Your task to perform on an android device: Open CNN.com Image 0: 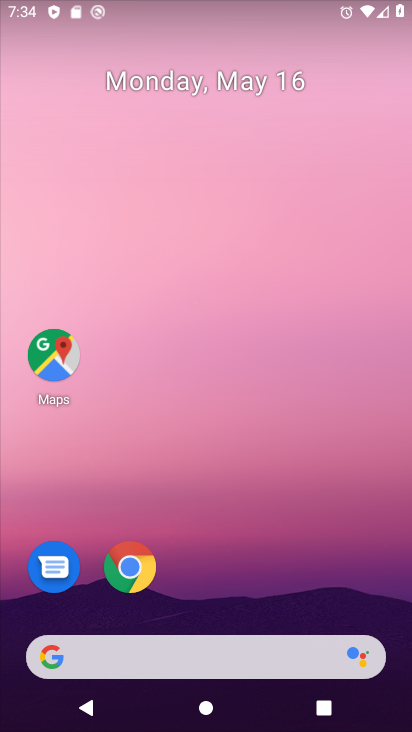
Step 0: press home button
Your task to perform on an android device: Open CNN.com Image 1: 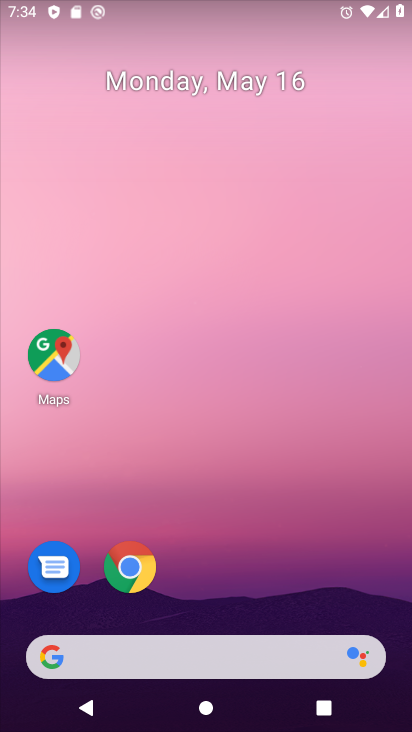
Step 1: drag from (152, 638) to (141, 262)
Your task to perform on an android device: Open CNN.com Image 2: 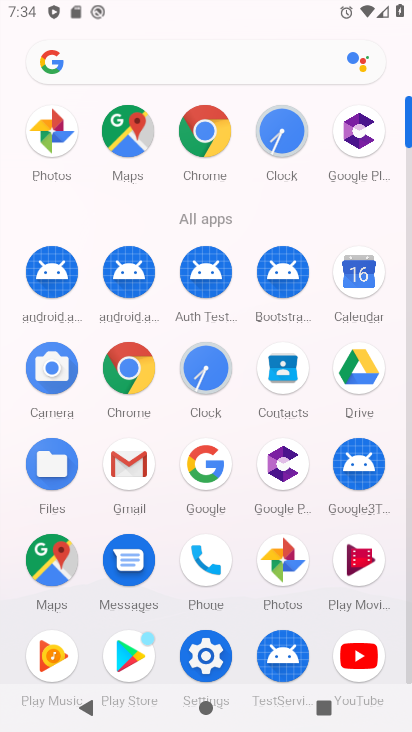
Step 2: click (207, 477)
Your task to perform on an android device: Open CNN.com Image 3: 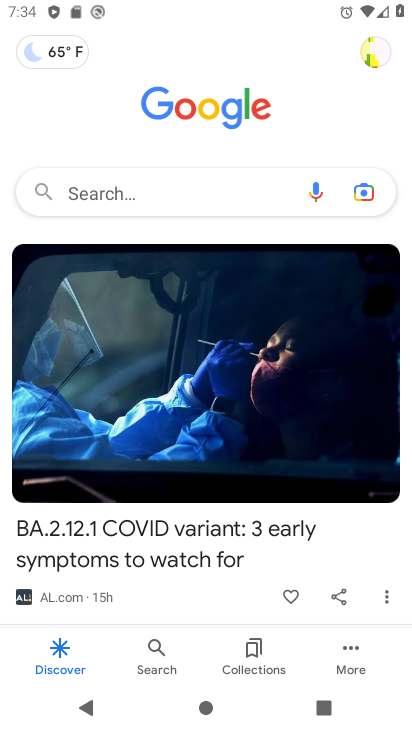
Step 3: click (137, 188)
Your task to perform on an android device: Open CNN.com Image 4: 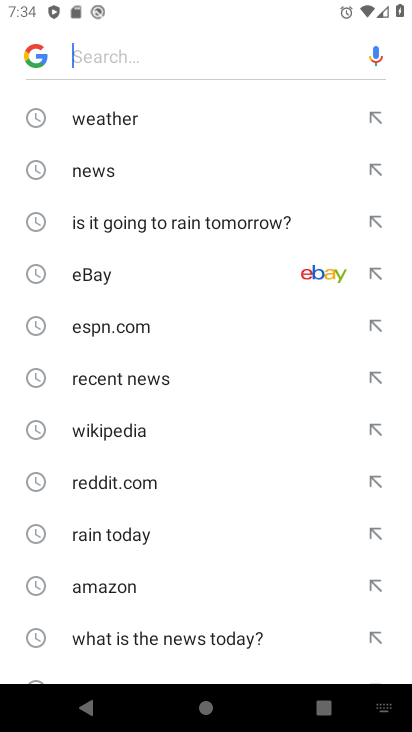
Step 4: drag from (148, 265) to (149, 201)
Your task to perform on an android device: Open CNN.com Image 5: 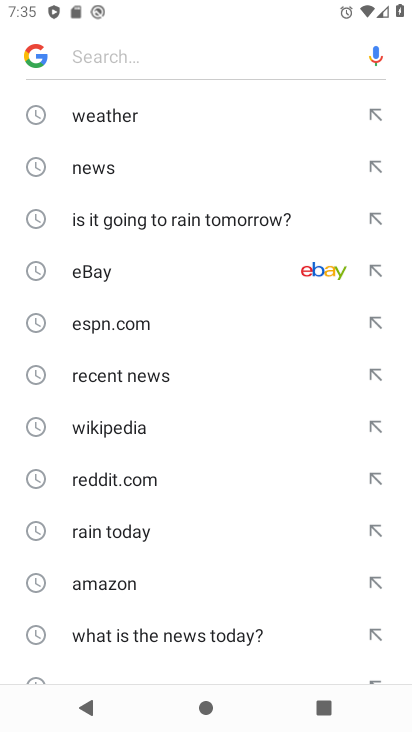
Step 5: drag from (136, 648) to (147, 197)
Your task to perform on an android device: Open CNN.com Image 6: 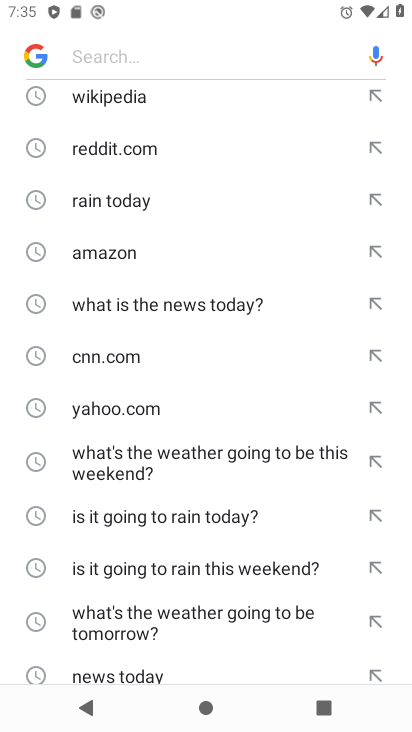
Step 6: click (119, 363)
Your task to perform on an android device: Open CNN.com Image 7: 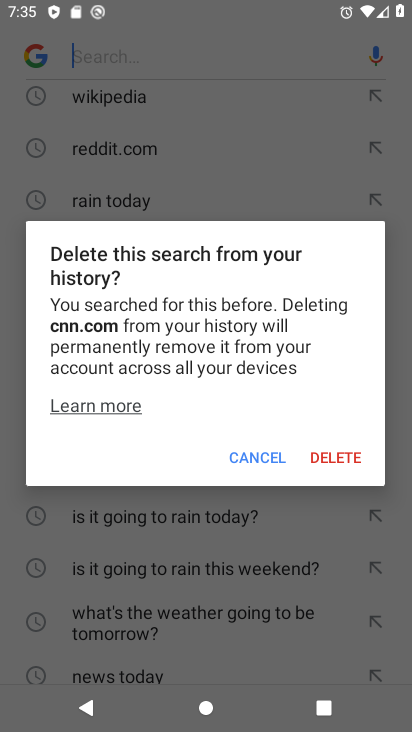
Step 7: click (249, 459)
Your task to perform on an android device: Open CNN.com Image 8: 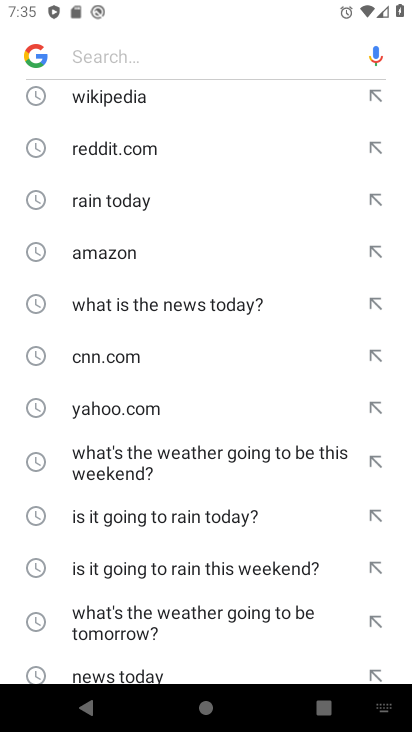
Step 8: click (107, 349)
Your task to perform on an android device: Open CNN.com Image 9: 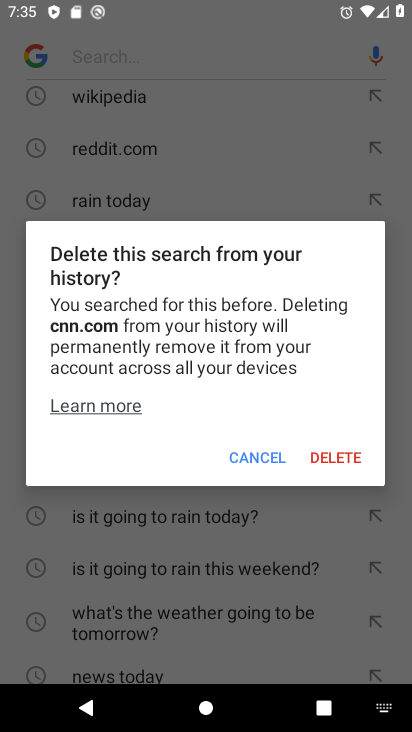
Step 9: click (244, 461)
Your task to perform on an android device: Open CNN.com Image 10: 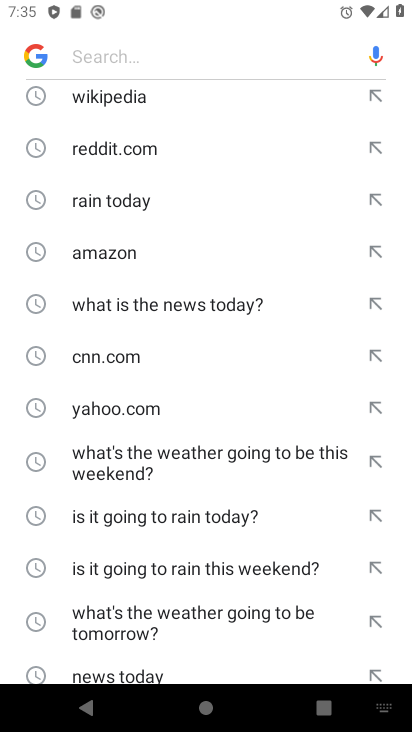
Step 10: click (371, 349)
Your task to perform on an android device: Open CNN.com Image 11: 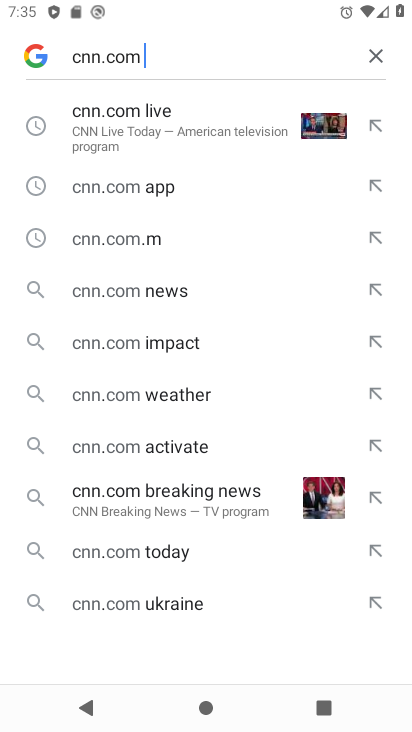
Step 11: click (119, 124)
Your task to perform on an android device: Open CNN.com Image 12: 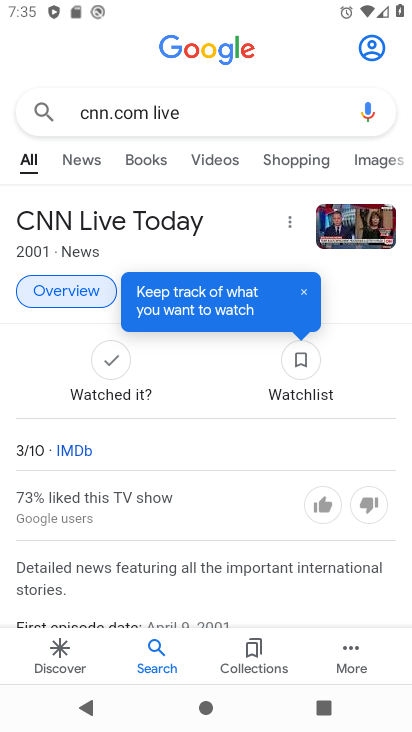
Step 12: drag from (184, 571) to (148, 217)
Your task to perform on an android device: Open CNN.com Image 13: 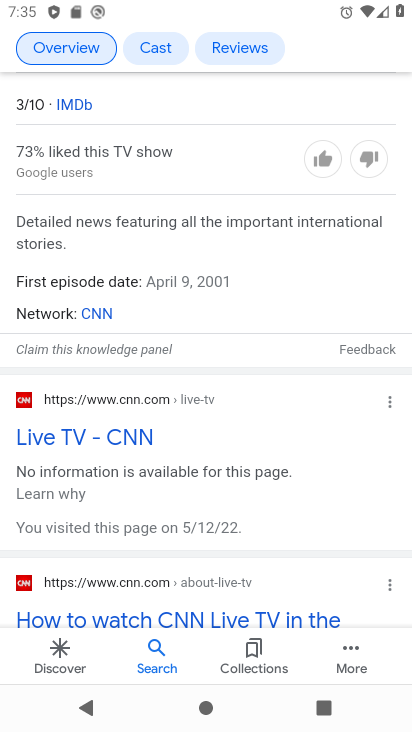
Step 13: click (63, 436)
Your task to perform on an android device: Open CNN.com Image 14: 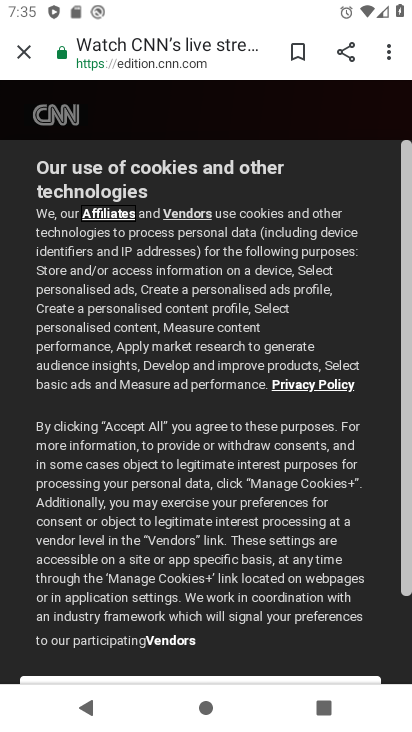
Step 14: task complete